Your task to perform on an android device: Open Youtube and go to "Your channel" Image 0: 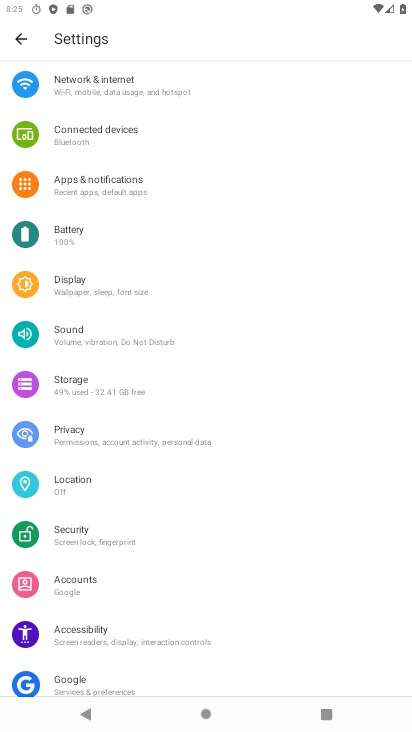
Step 0: press home button
Your task to perform on an android device: Open Youtube and go to "Your channel" Image 1: 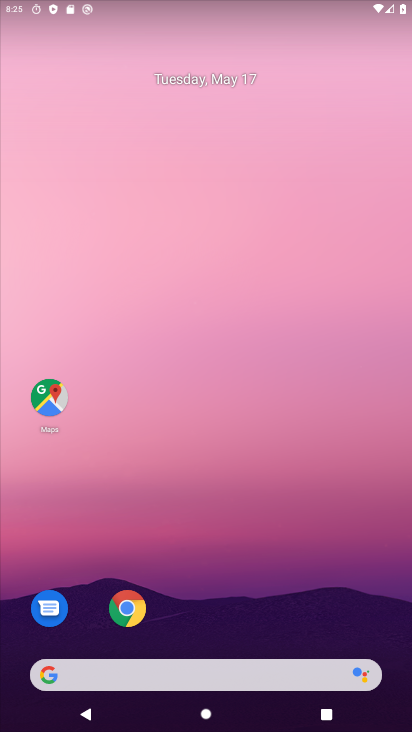
Step 1: drag from (340, 606) to (259, 166)
Your task to perform on an android device: Open Youtube and go to "Your channel" Image 2: 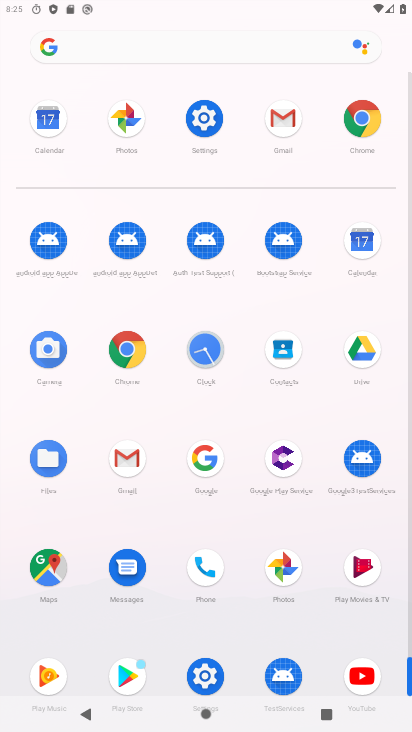
Step 2: click (353, 681)
Your task to perform on an android device: Open Youtube and go to "Your channel" Image 3: 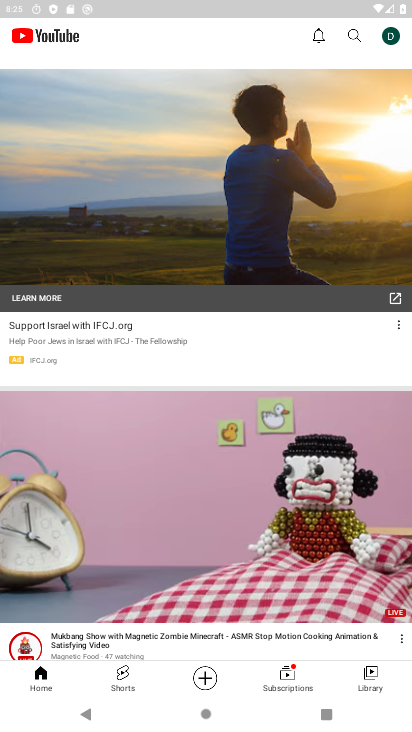
Step 3: click (389, 35)
Your task to perform on an android device: Open Youtube and go to "Your channel" Image 4: 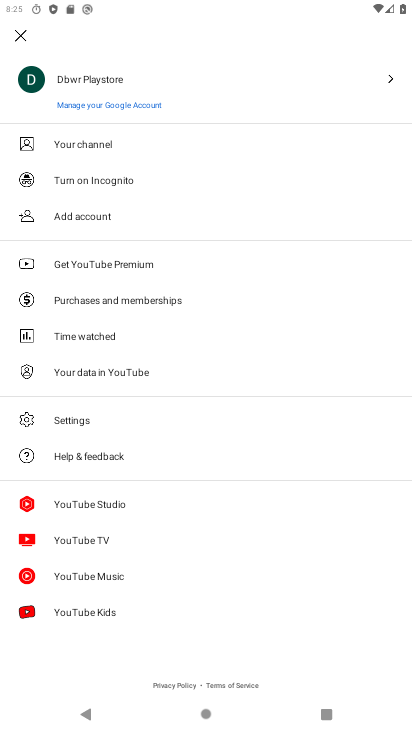
Step 4: click (93, 148)
Your task to perform on an android device: Open Youtube and go to "Your channel" Image 5: 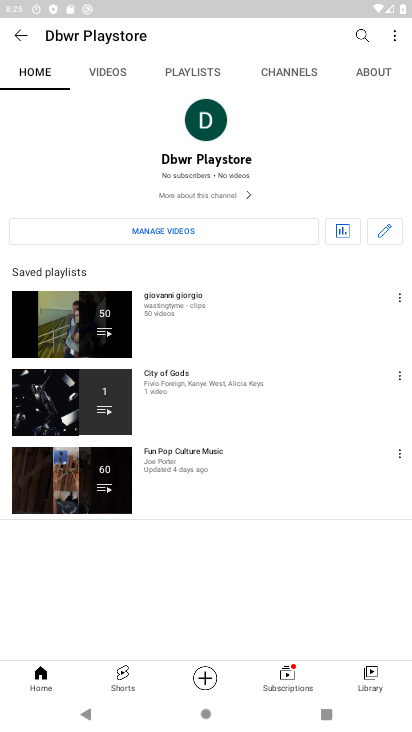
Step 5: task complete